Your task to perform on an android device: Open the web browser Image 0: 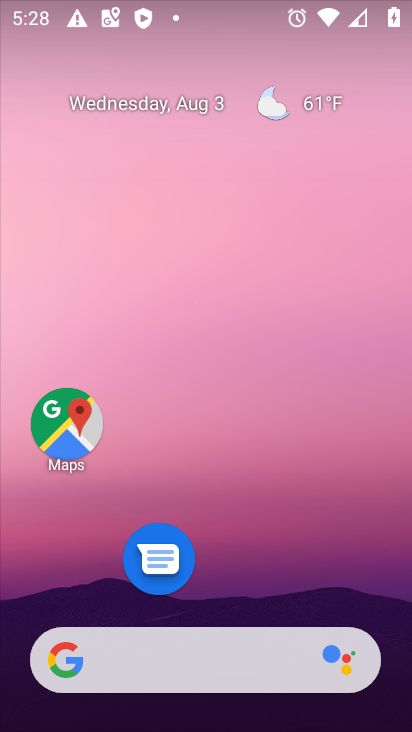
Step 0: drag from (254, 636) to (252, 201)
Your task to perform on an android device: Open the web browser Image 1: 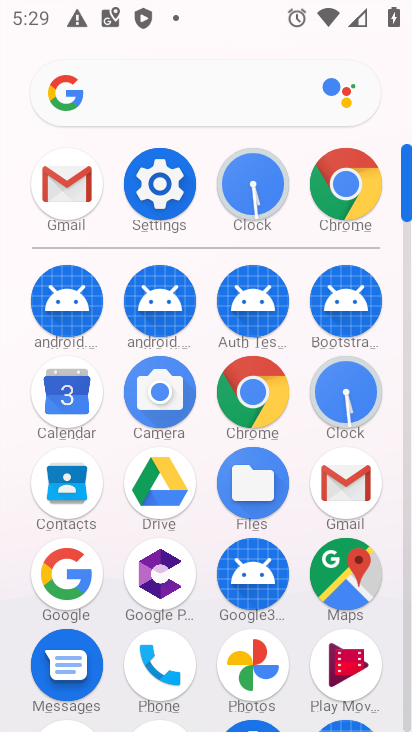
Step 1: click (335, 191)
Your task to perform on an android device: Open the web browser Image 2: 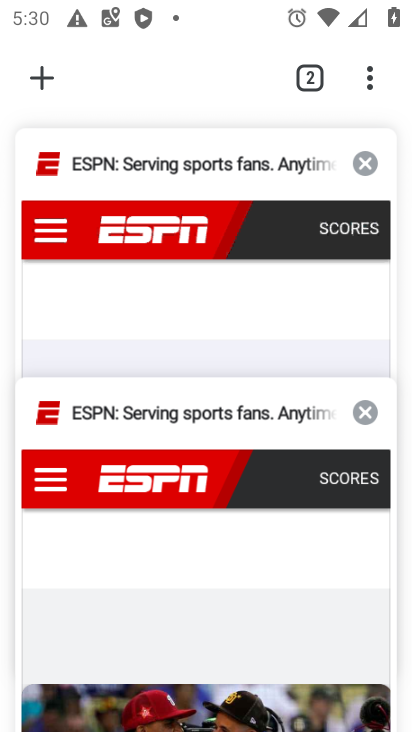
Step 2: task complete